Your task to perform on an android device: move an email to a new category in the gmail app Image 0: 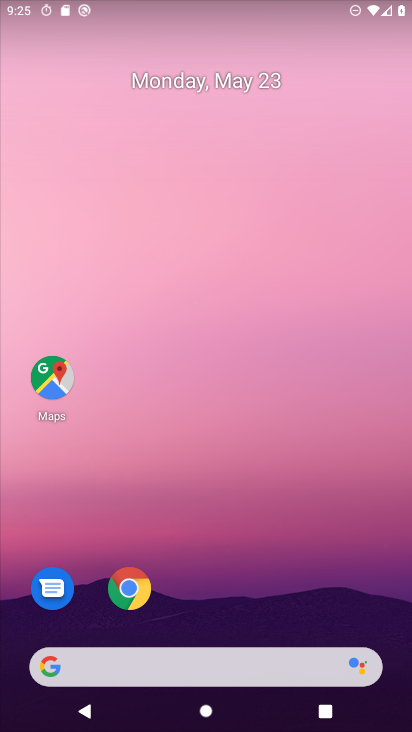
Step 0: press home button
Your task to perform on an android device: move an email to a new category in the gmail app Image 1: 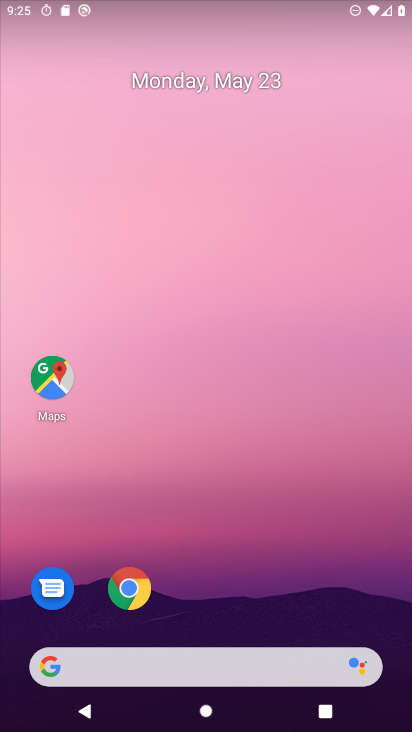
Step 1: drag from (392, 701) to (364, 103)
Your task to perform on an android device: move an email to a new category in the gmail app Image 2: 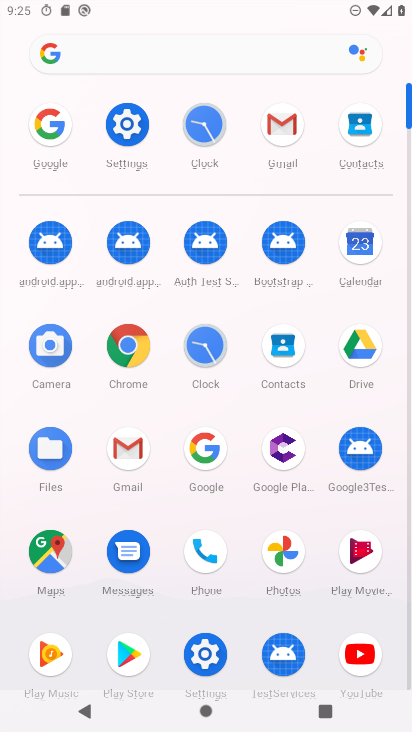
Step 2: click (120, 449)
Your task to perform on an android device: move an email to a new category in the gmail app Image 3: 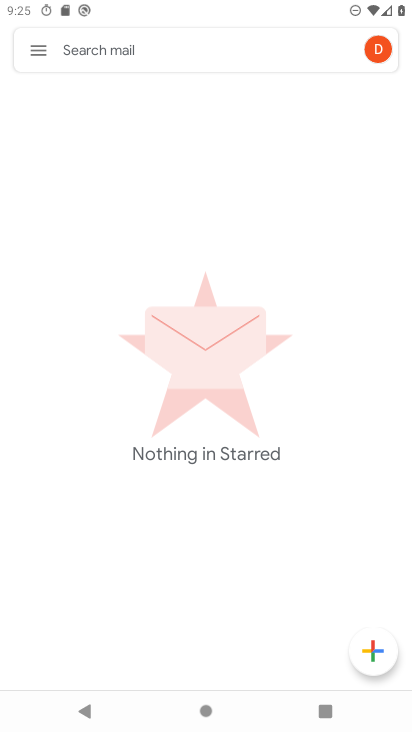
Step 3: click (31, 51)
Your task to perform on an android device: move an email to a new category in the gmail app Image 4: 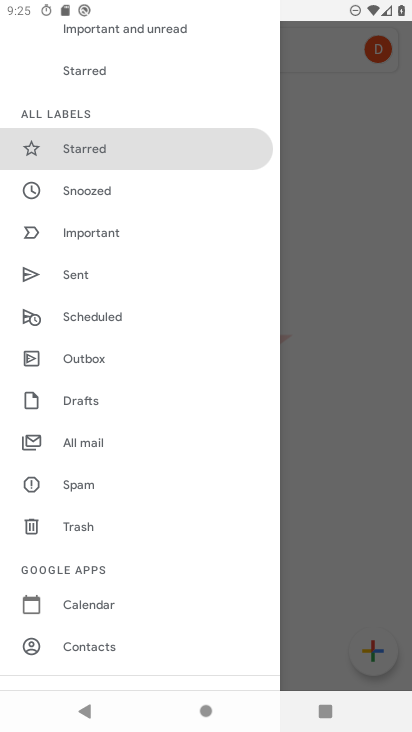
Step 4: drag from (246, 113) to (249, 426)
Your task to perform on an android device: move an email to a new category in the gmail app Image 5: 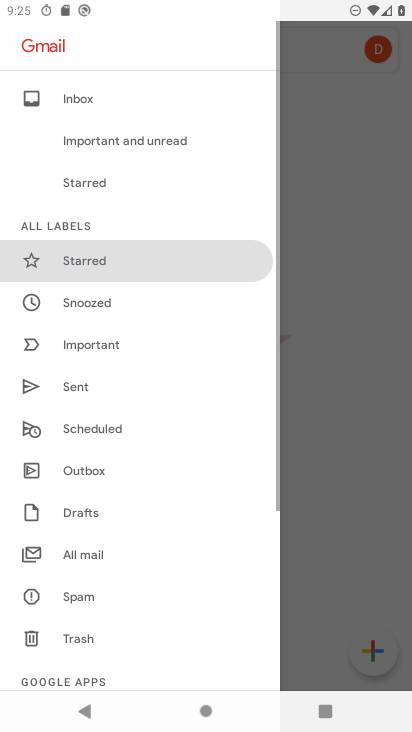
Step 5: click (88, 91)
Your task to perform on an android device: move an email to a new category in the gmail app Image 6: 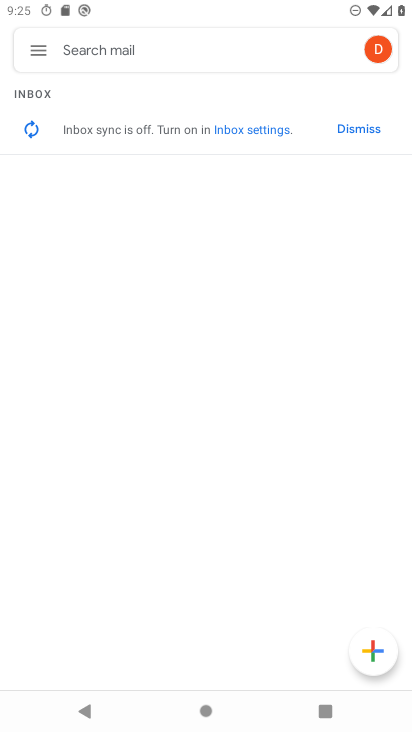
Step 6: task complete